Your task to perform on an android device: Go to Google maps Image 0: 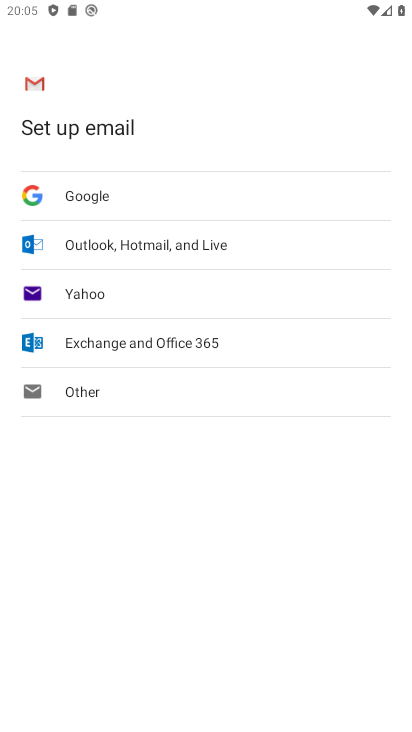
Step 0: press home button
Your task to perform on an android device: Go to Google maps Image 1: 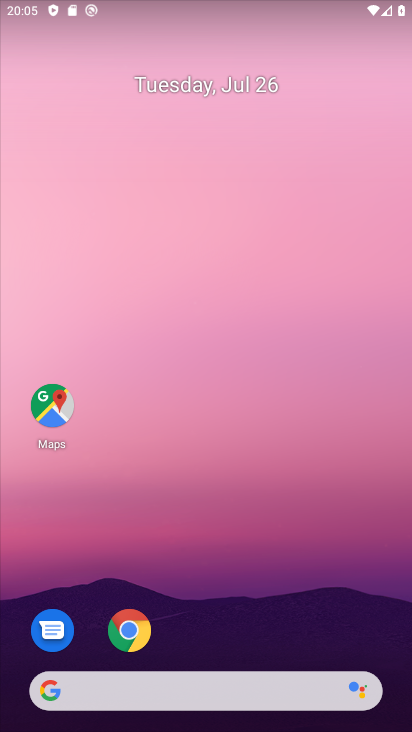
Step 1: drag from (352, 599) to (379, 115)
Your task to perform on an android device: Go to Google maps Image 2: 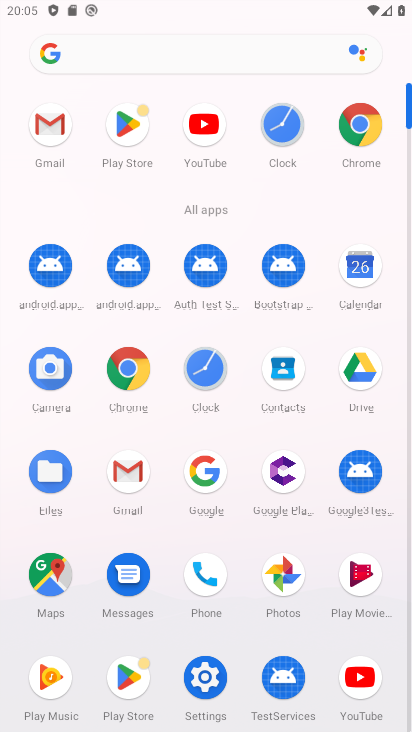
Step 2: click (50, 574)
Your task to perform on an android device: Go to Google maps Image 3: 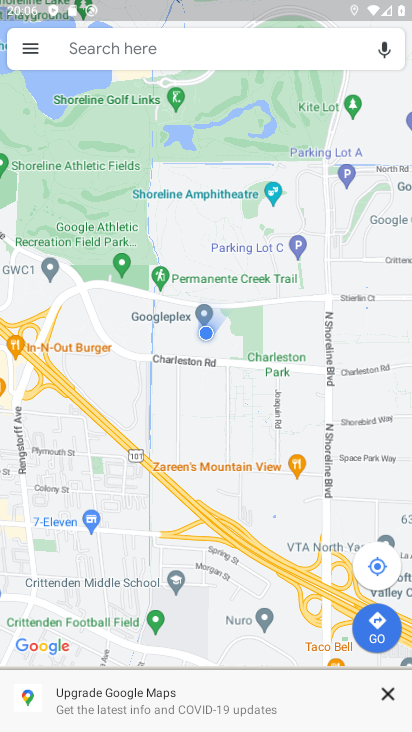
Step 3: task complete